Your task to perform on an android device: Open the phone app and click the voicemail tab. Image 0: 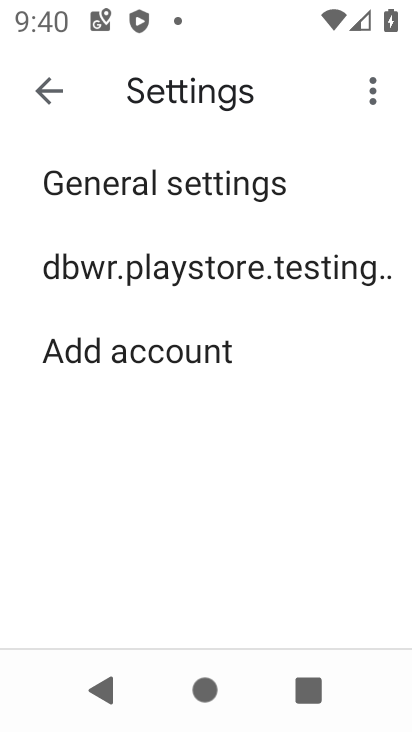
Step 0: press back button
Your task to perform on an android device: Open the phone app and click the voicemail tab. Image 1: 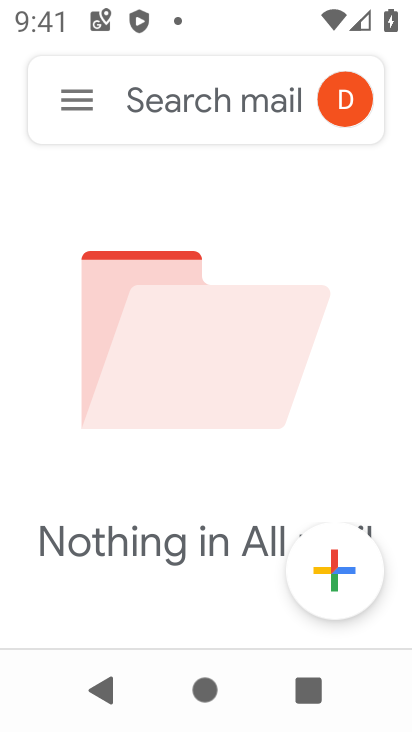
Step 1: press back button
Your task to perform on an android device: Open the phone app and click the voicemail tab. Image 2: 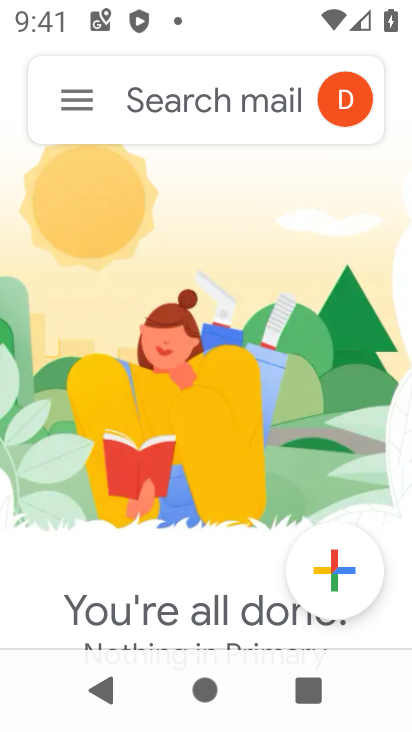
Step 2: press back button
Your task to perform on an android device: Open the phone app and click the voicemail tab. Image 3: 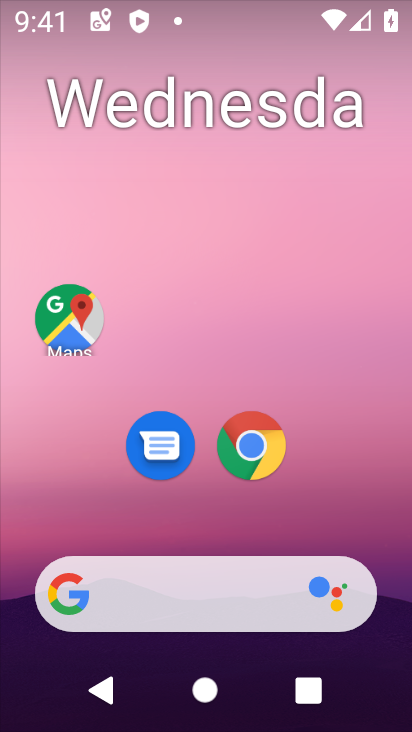
Step 3: drag from (174, 536) to (376, 48)
Your task to perform on an android device: Open the phone app and click the voicemail tab. Image 4: 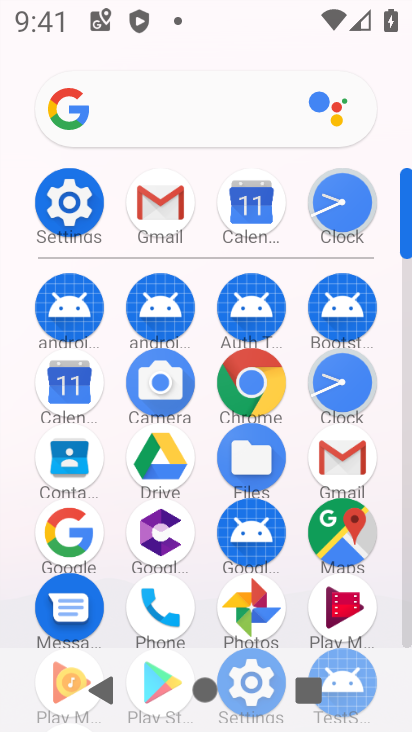
Step 4: click (164, 607)
Your task to perform on an android device: Open the phone app and click the voicemail tab. Image 5: 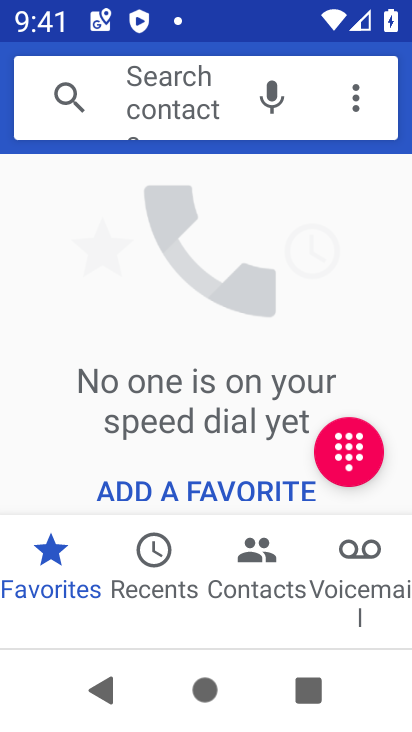
Step 5: click (366, 575)
Your task to perform on an android device: Open the phone app and click the voicemail tab. Image 6: 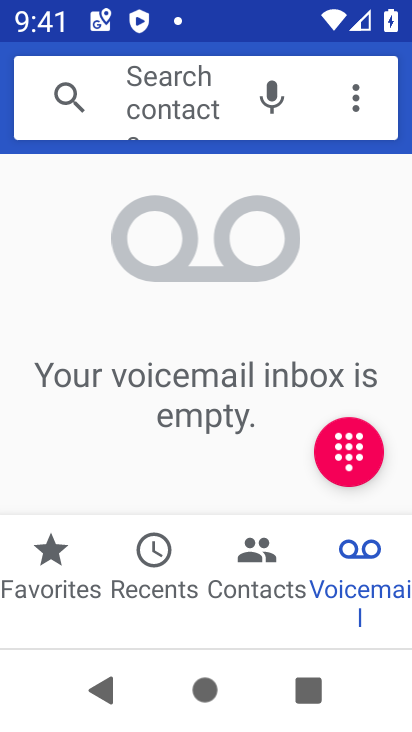
Step 6: task complete